Your task to perform on an android device: Go to network settings Image 0: 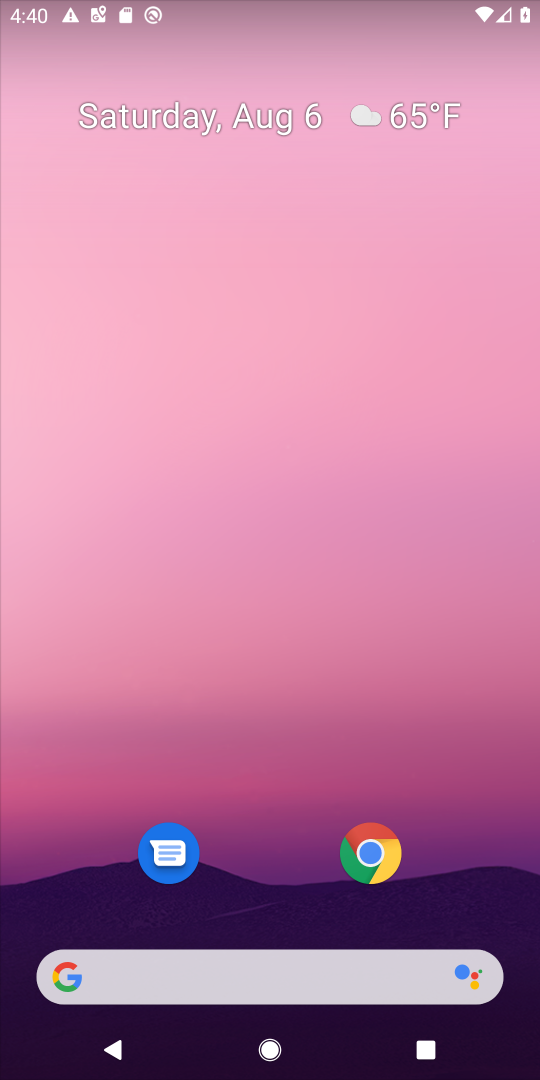
Step 0: drag from (175, 893) to (295, 189)
Your task to perform on an android device: Go to network settings Image 1: 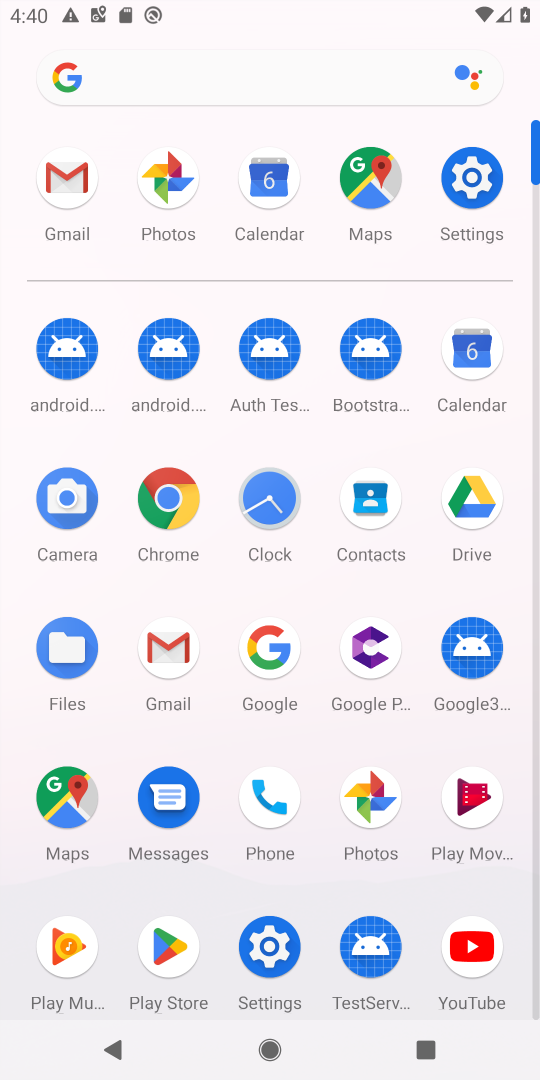
Step 1: click (482, 175)
Your task to perform on an android device: Go to network settings Image 2: 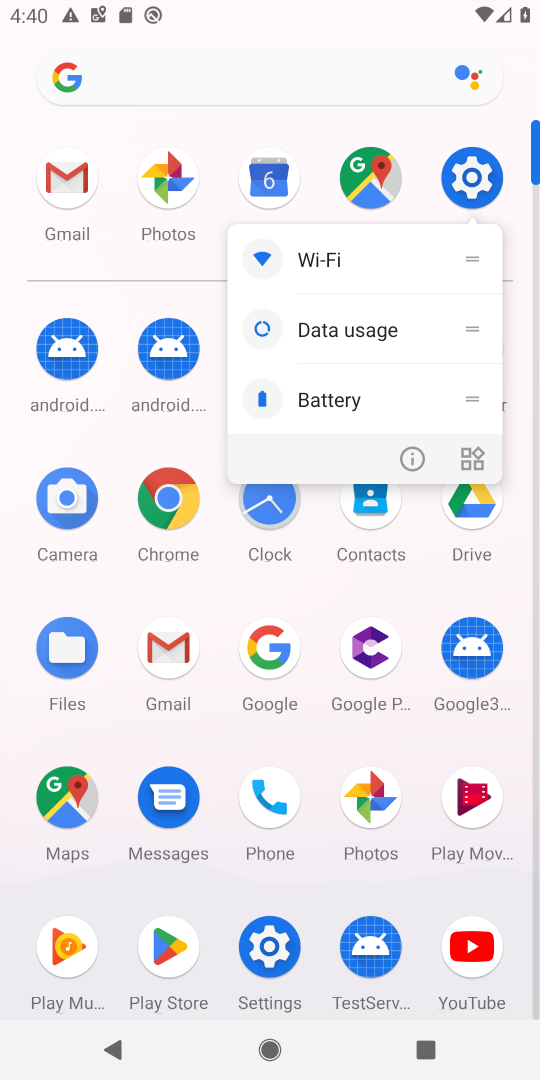
Step 2: click (483, 177)
Your task to perform on an android device: Go to network settings Image 3: 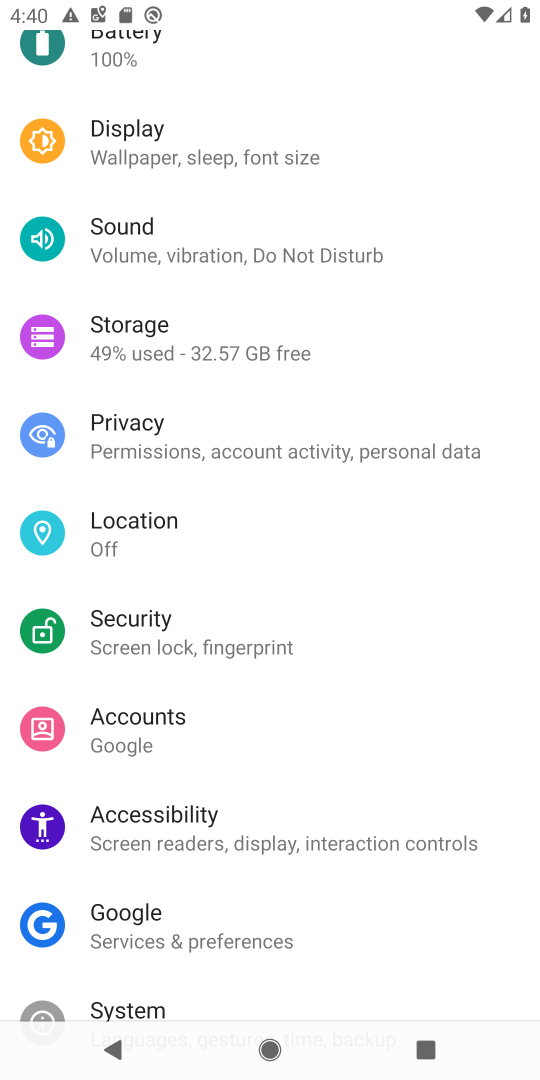
Step 3: drag from (371, 202) to (214, 1071)
Your task to perform on an android device: Go to network settings Image 4: 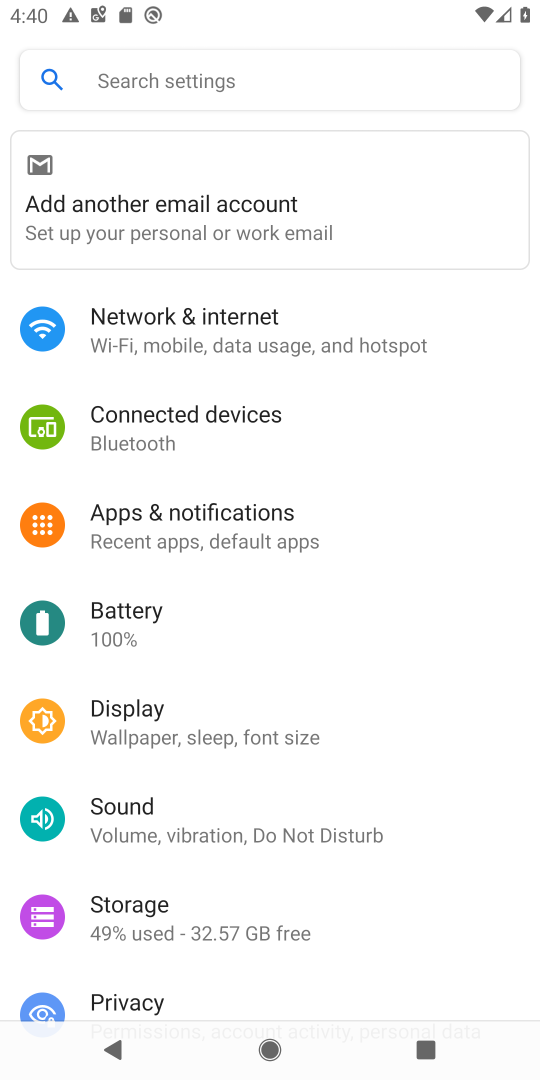
Step 4: click (133, 302)
Your task to perform on an android device: Go to network settings Image 5: 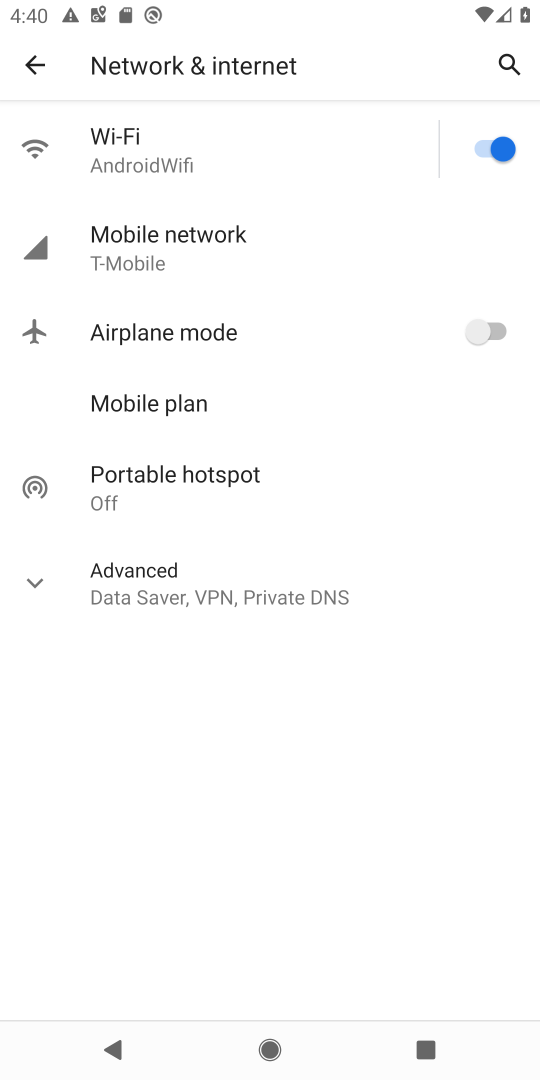
Step 5: task complete